Your task to perform on an android device: toggle wifi Image 0: 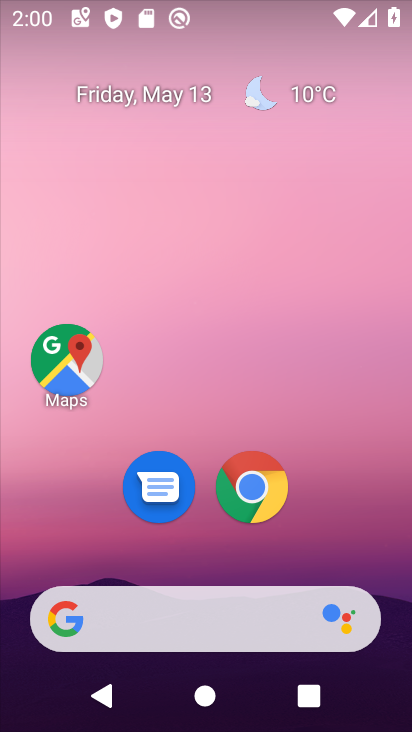
Step 0: drag from (203, 561) to (288, 154)
Your task to perform on an android device: toggle wifi Image 1: 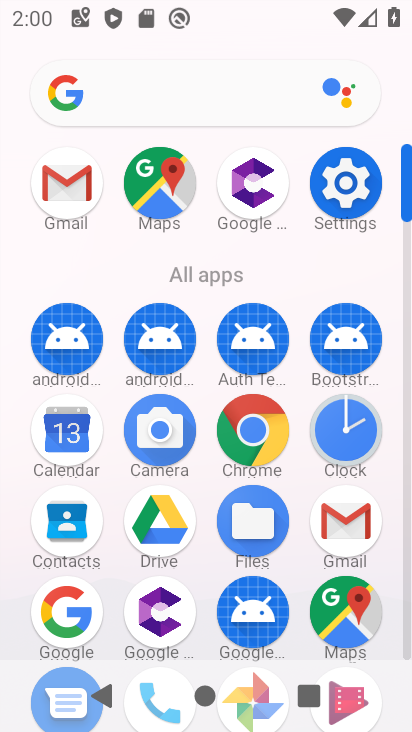
Step 1: click (343, 182)
Your task to perform on an android device: toggle wifi Image 2: 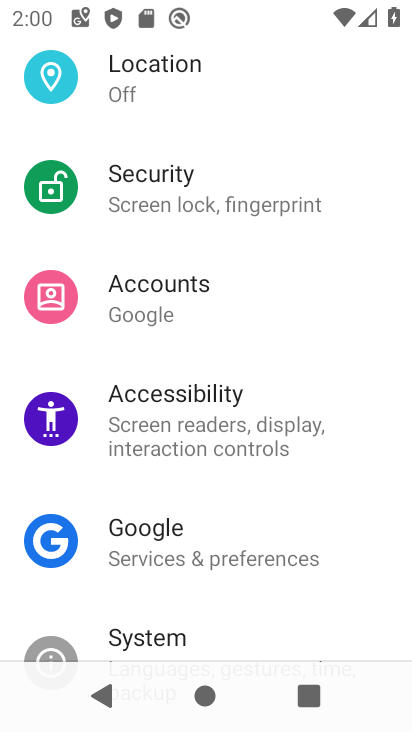
Step 2: drag from (162, 147) to (141, 564)
Your task to perform on an android device: toggle wifi Image 3: 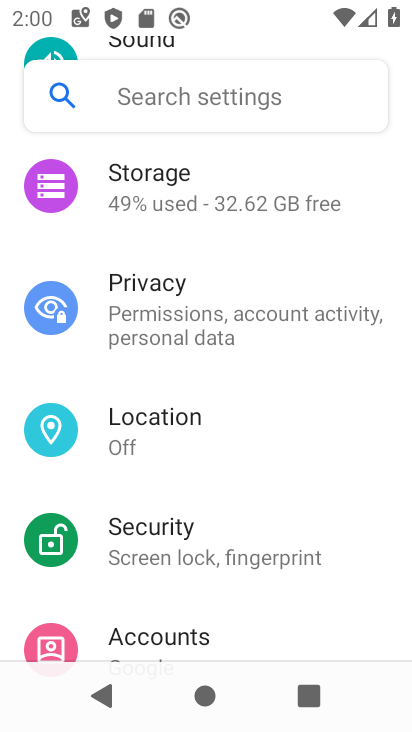
Step 3: drag from (222, 170) to (220, 583)
Your task to perform on an android device: toggle wifi Image 4: 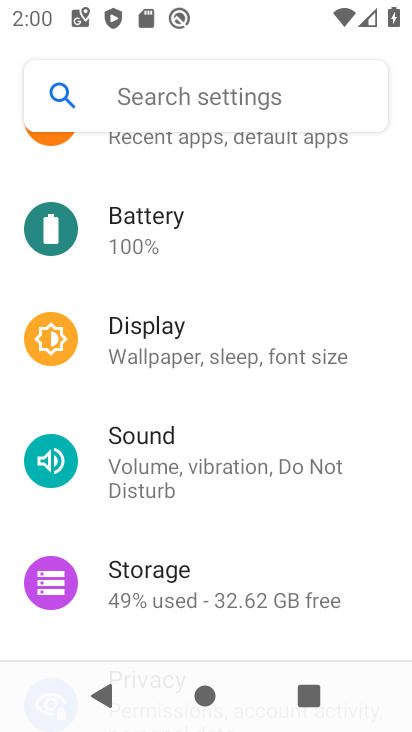
Step 4: drag from (236, 242) to (220, 523)
Your task to perform on an android device: toggle wifi Image 5: 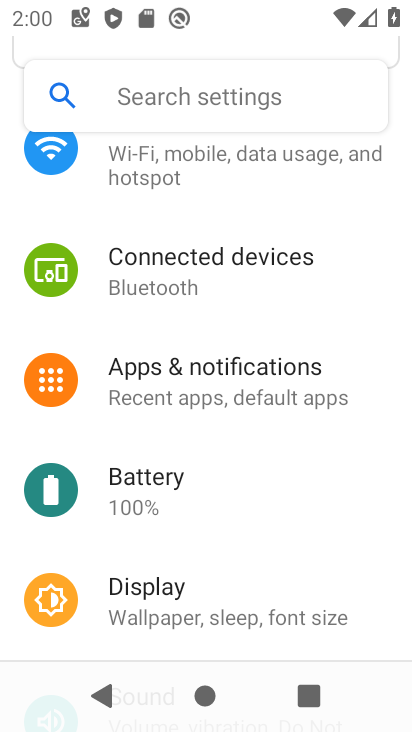
Step 5: drag from (219, 180) to (260, 511)
Your task to perform on an android device: toggle wifi Image 6: 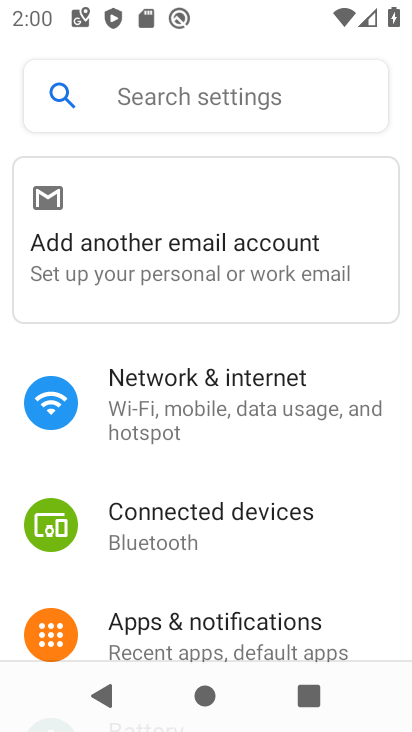
Step 6: click (203, 387)
Your task to perform on an android device: toggle wifi Image 7: 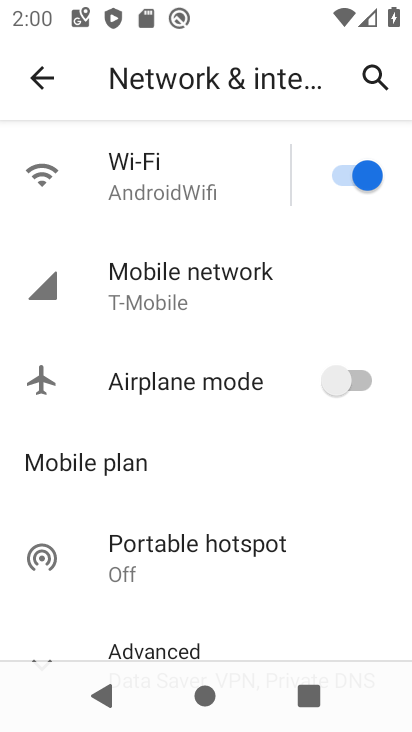
Step 7: task complete